Your task to perform on an android device: Open sound settings Image 0: 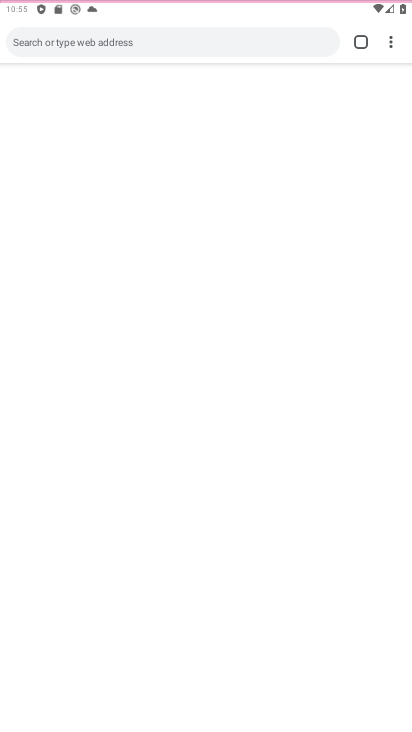
Step 0: click (255, 229)
Your task to perform on an android device: Open sound settings Image 1: 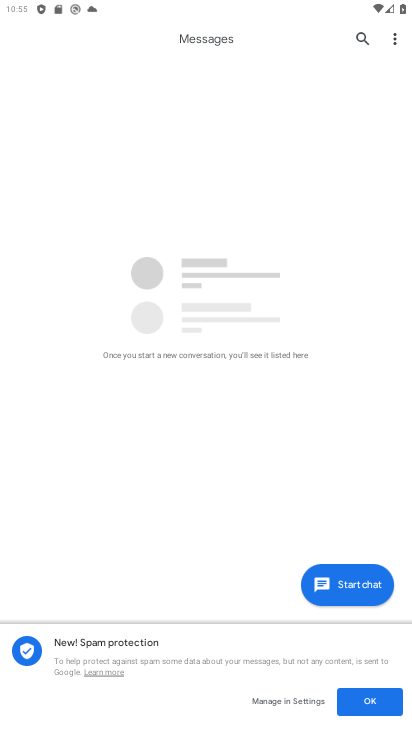
Step 1: press home button
Your task to perform on an android device: Open sound settings Image 2: 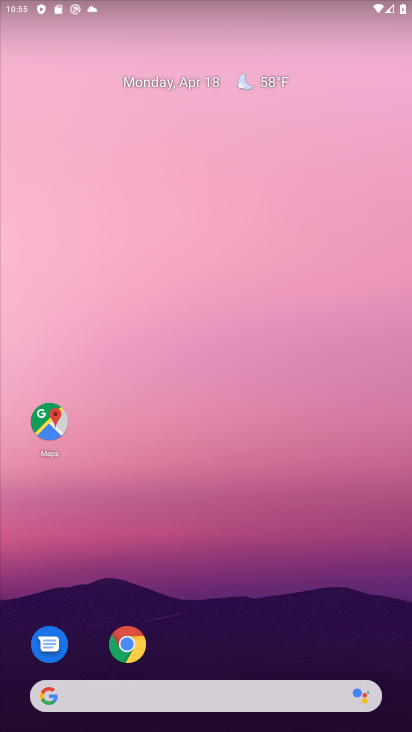
Step 2: drag from (161, 628) to (150, 158)
Your task to perform on an android device: Open sound settings Image 3: 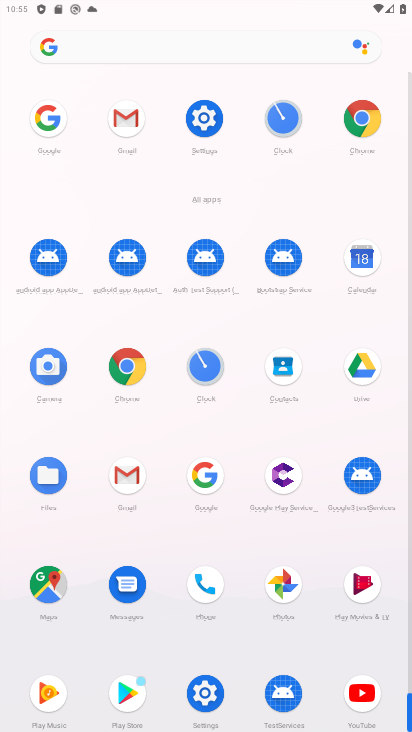
Step 3: click (203, 107)
Your task to perform on an android device: Open sound settings Image 4: 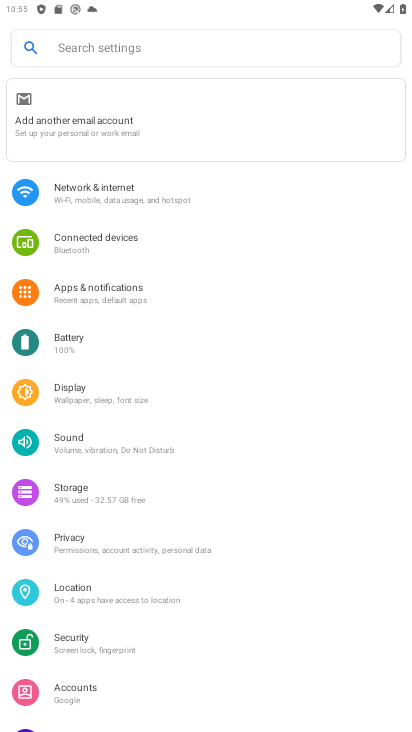
Step 4: click (88, 446)
Your task to perform on an android device: Open sound settings Image 5: 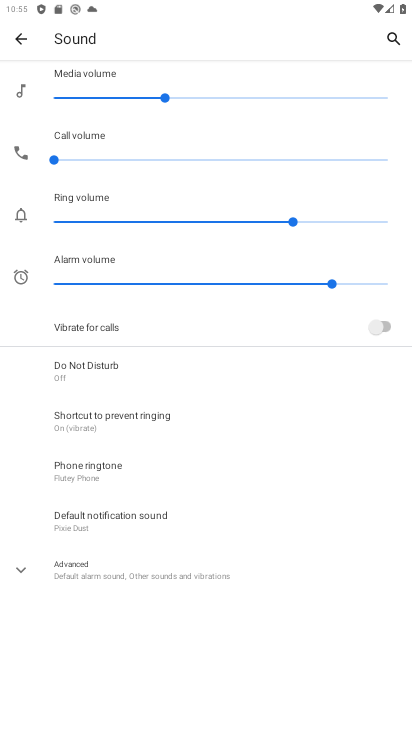
Step 5: task complete